Your task to perform on an android device: Open settings Image 0: 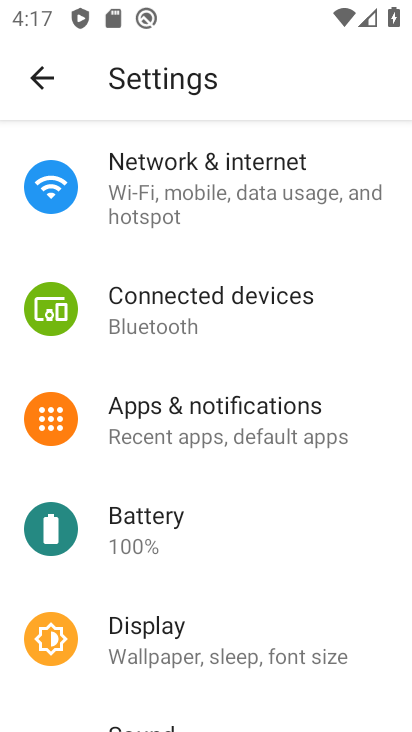
Step 0: task complete